Your task to perform on an android device: Show me productivity apps on the Play Store Image 0: 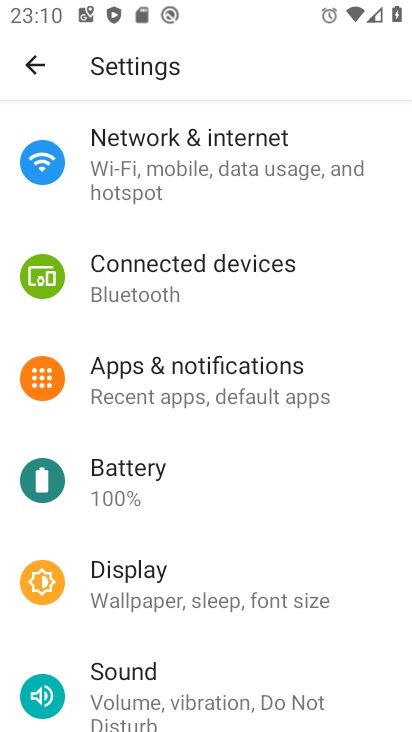
Step 0: press home button
Your task to perform on an android device: Show me productivity apps on the Play Store Image 1: 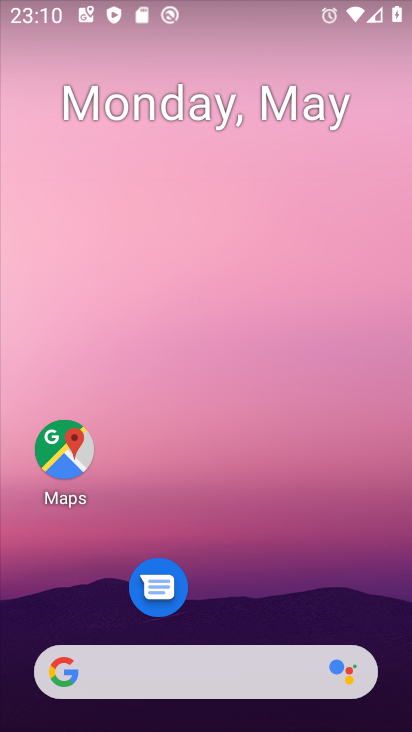
Step 1: drag from (228, 612) to (336, 80)
Your task to perform on an android device: Show me productivity apps on the Play Store Image 2: 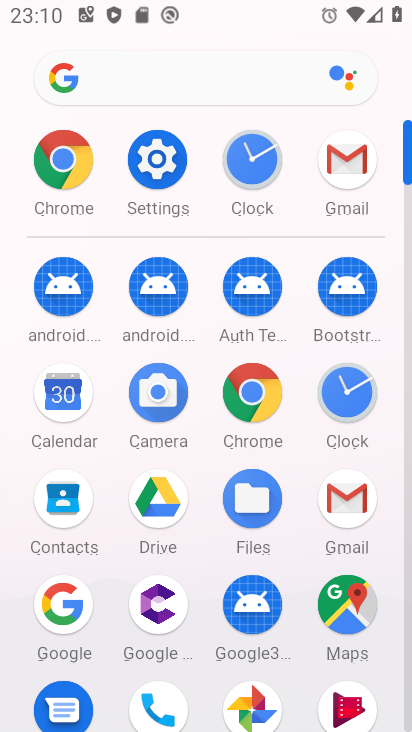
Step 2: drag from (234, 650) to (293, 30)
Your task to perform on an android device: Show me productivity apps on the Play Store Image 3: 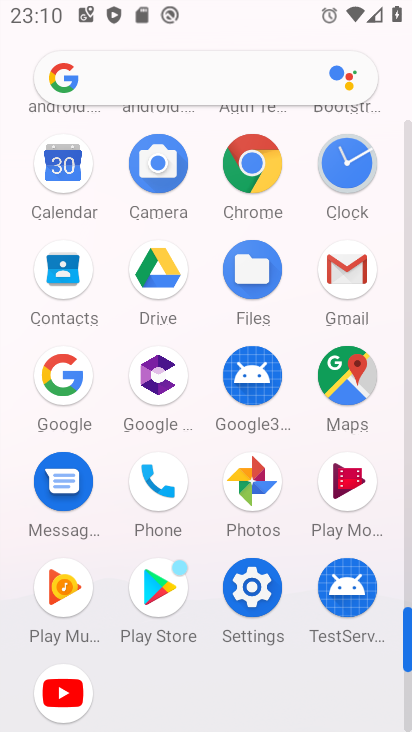
Step 3: click (155, 583)
Your task to perform on an android device: Show me productivity apps on the Play Store Image 4: 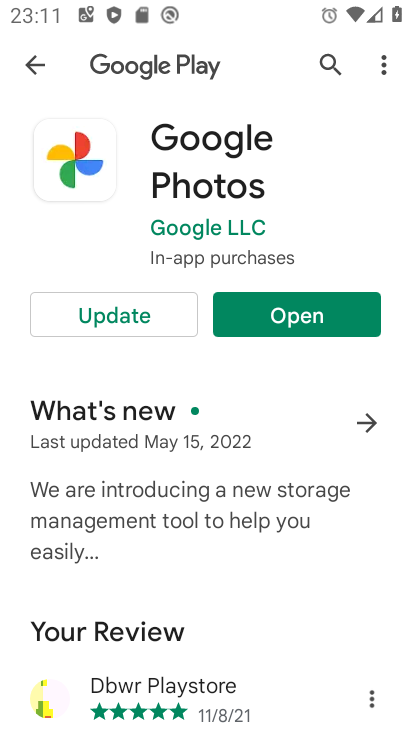
Step 4: click (158, 320)
Your task to perform on an android device: Show me productivity apps on the Play Store Image 5: 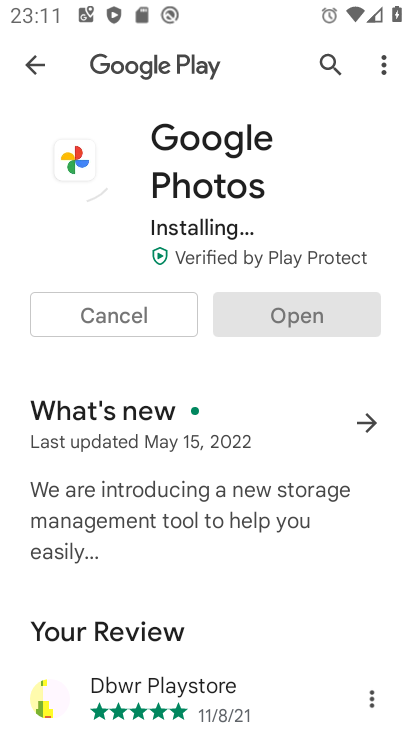
Step 5: click (49, 58)
Your task to perform on an android device: Show me productivity apps on the Play Store Image 6: 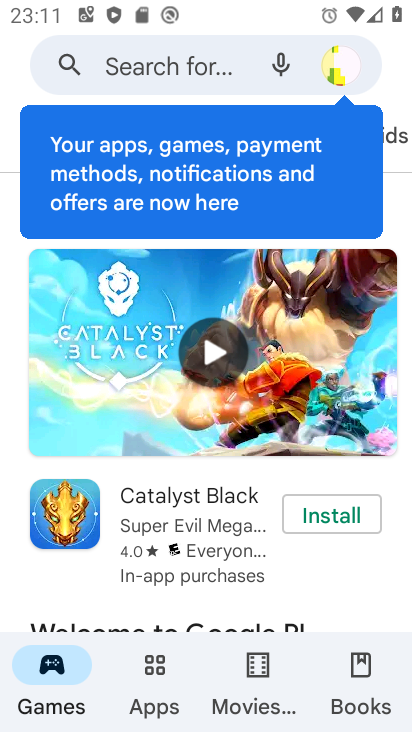
Step 6: click (173, 672)
Your task to perform on an android device: Show me productivity apps on the Play Store Image 7: 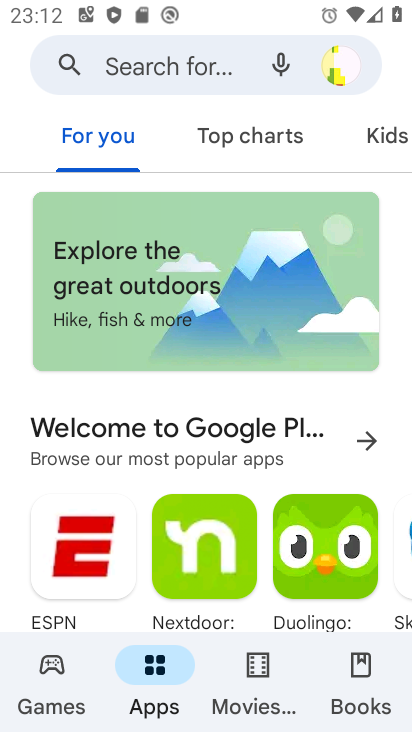
Step 7: drag from (390, 130) to (5, 102)
Your task to perform on an android device: Show me productivity apps on the Play Store Image 8: 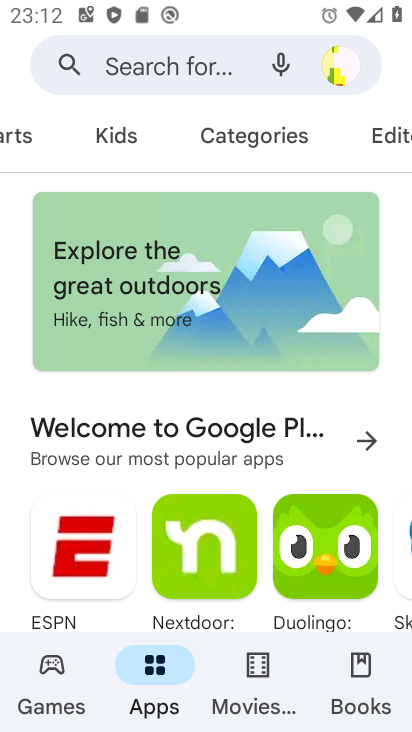
Step 8: click (249, 133)
Your task to perform on an android device: Show me productivity apps on the Play Store Image 9: 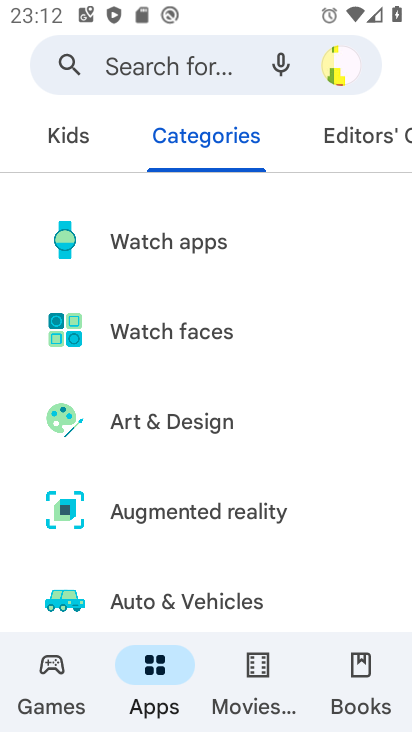
Step 9: drag from (281, 555) to (253, 13)
Your task to perform on an android device: Show me productivity apps on the Play Store Image 10: 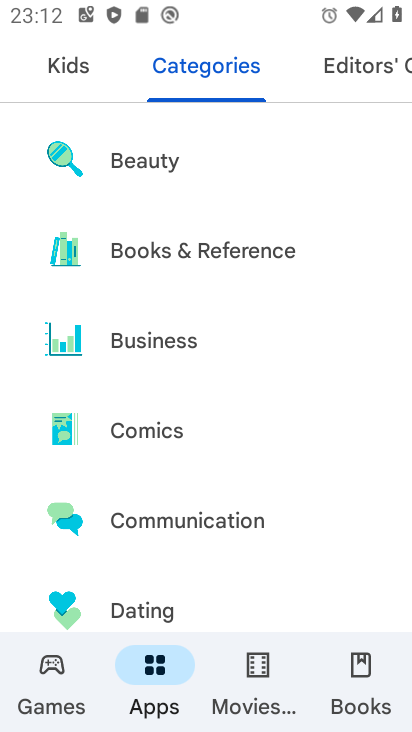
Step 10: drag from (273, 484) to (292, 0)
Your task to perform on an android device: Show me productivity apps on the Play Store Image 11: 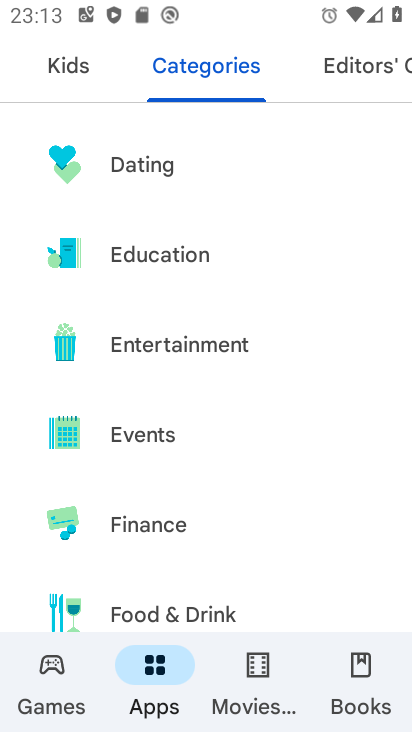
Step 11: drag from (244, 532) to (187, 5)
Your task to perform on an android device: Show me productivity apps on the Play Store Image 12: 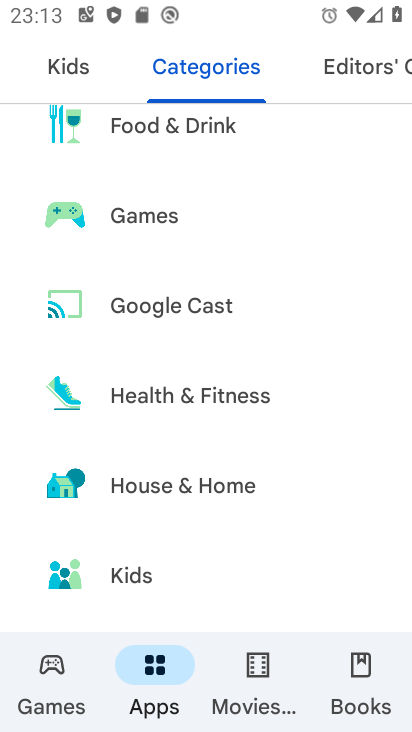
Step 12: drag from (190, 444) to (224, 11)
Your task to perform on an android device: Show me productivity apps on the Play Store Image 13: 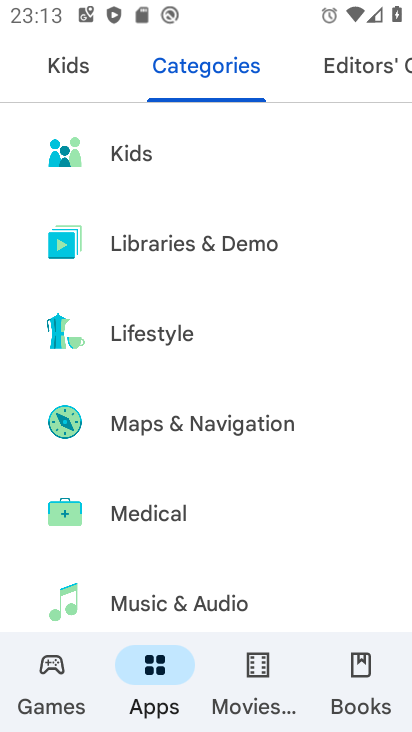
Step 13: drag from (258, 544) to (180, 3)
Your task to perform on an android device: Show me productivity apps on the Play Store Image 14: 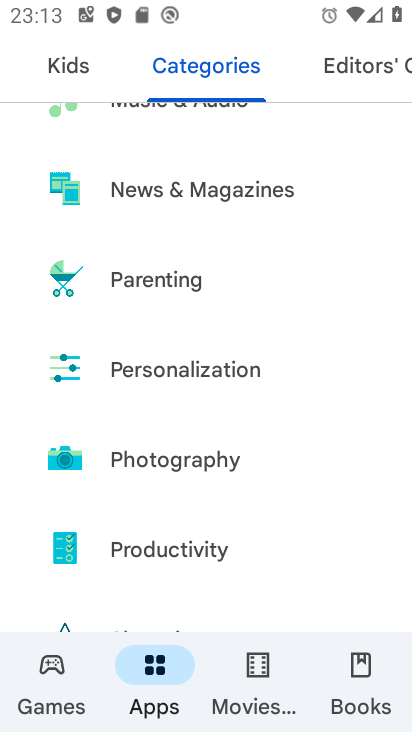
Step 14: click (203, 533)
Your task to perform on an android device: Show me productivity apps on the Play Store Image 15: 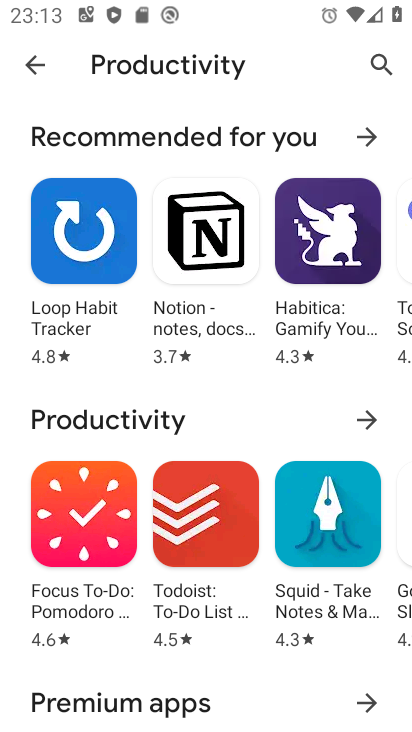
Step 15: task complete